Your task to perform on an android device: open app "Messages" (install if not already installed) Image 0: 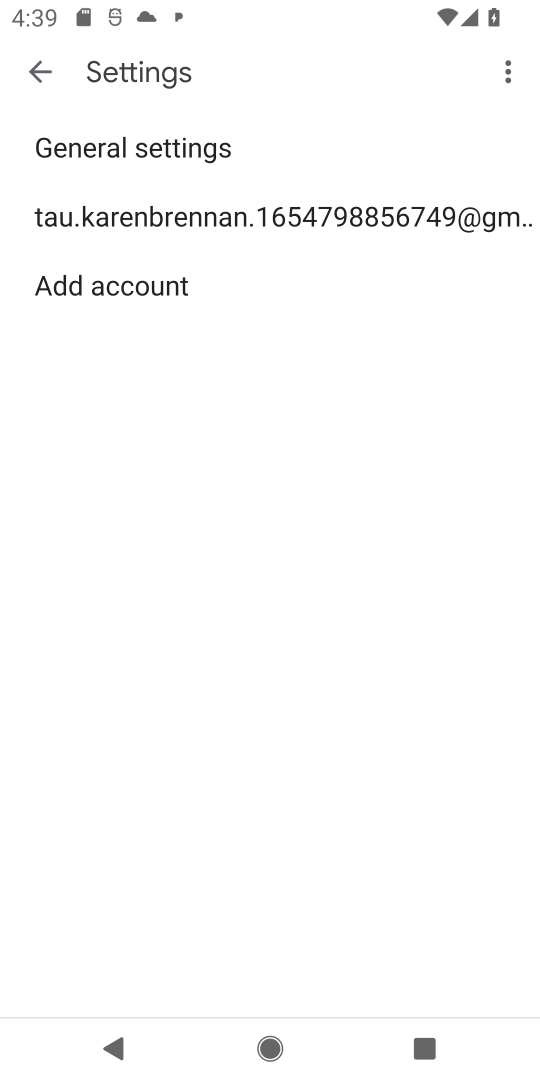
Step 0: press back button
Your task to perform on an android device: open app "Messages" (install if not already installed) Image 1: 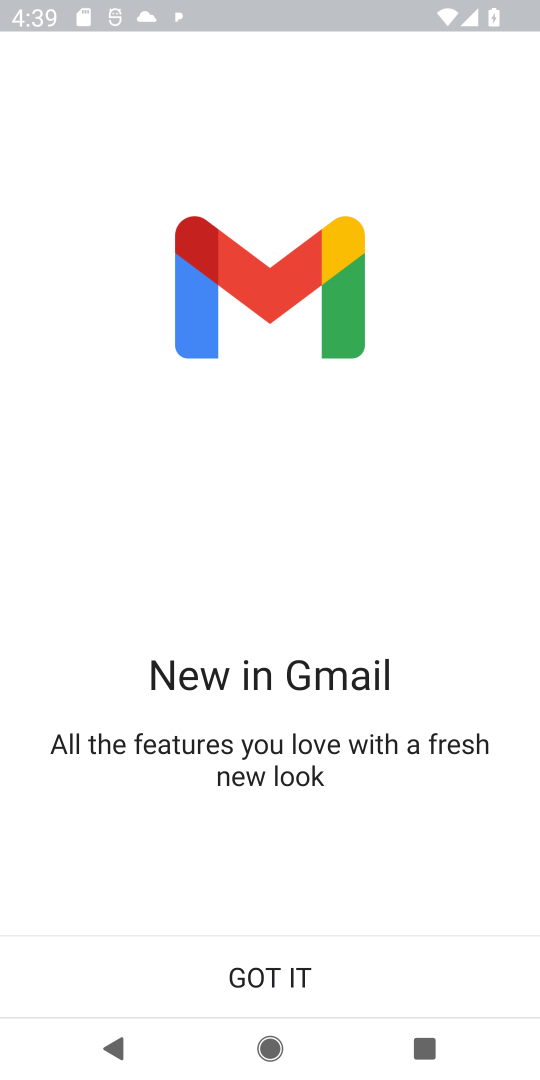
Step 1: press back button
Your task to perform on an android device: open app "Messages" (install if not already installed) Image 2: 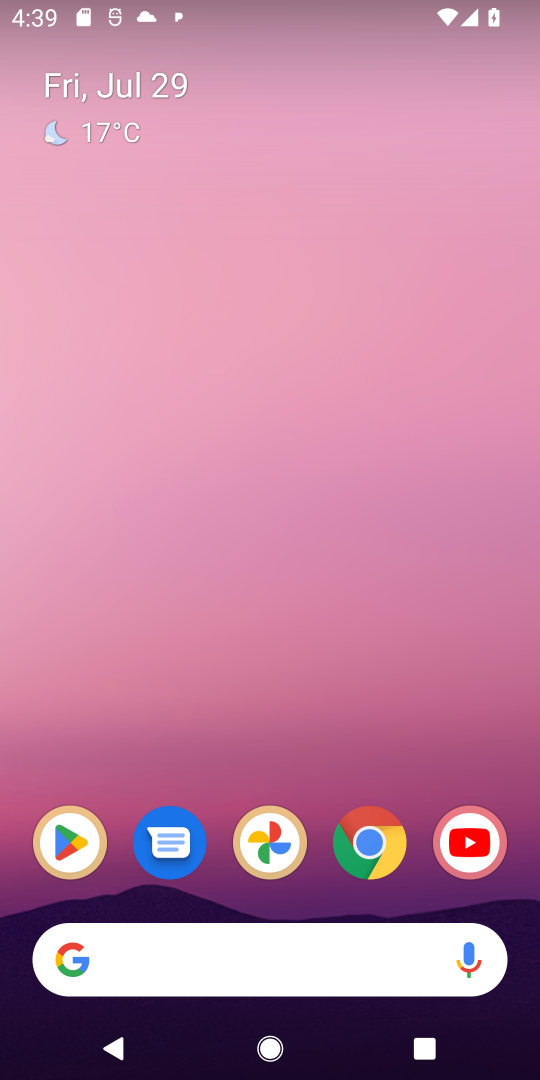
Step 2: click (177, 845)
Your task to perform on an android device: open app "Messages" (install if not already installed) Image 3: 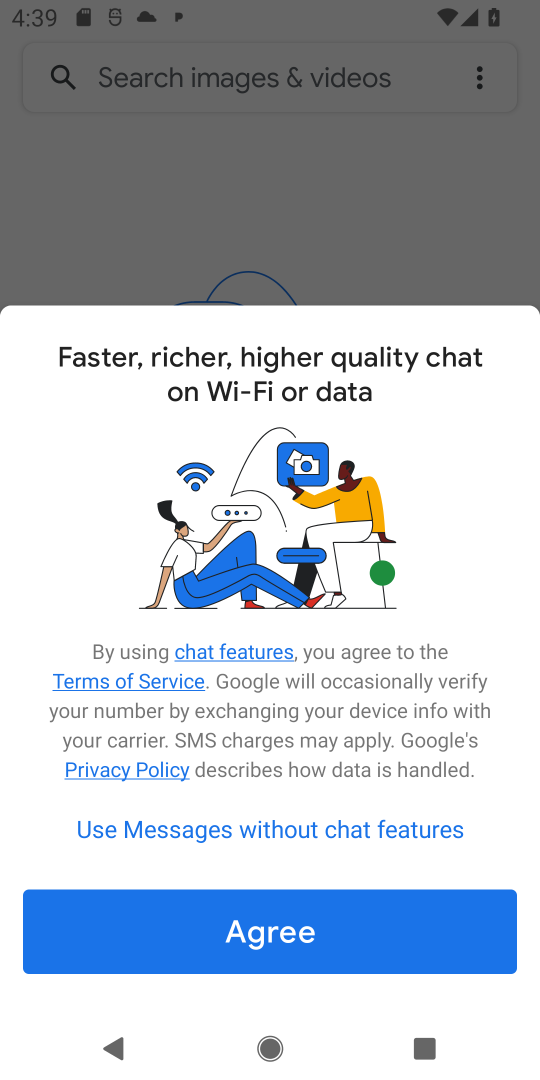
Step 3: task complete